Your task to perform on an android device: choose inbox layout in the gmail app Image 0: 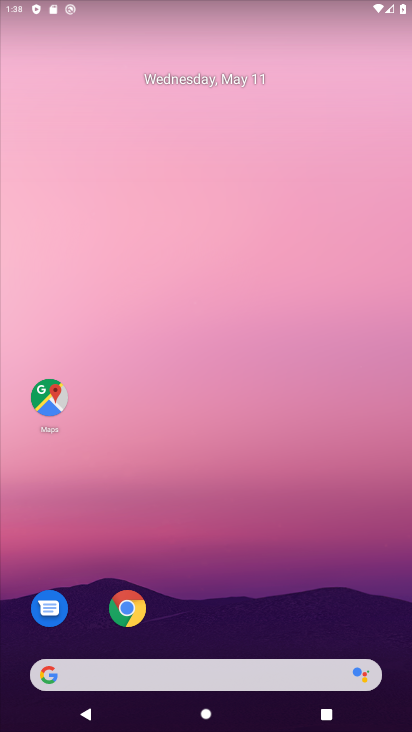
Step 0: drag from (195, 567) to (196, 313)
Your task to perform on an android device: choose inbox layout in the gmail app Image 1: 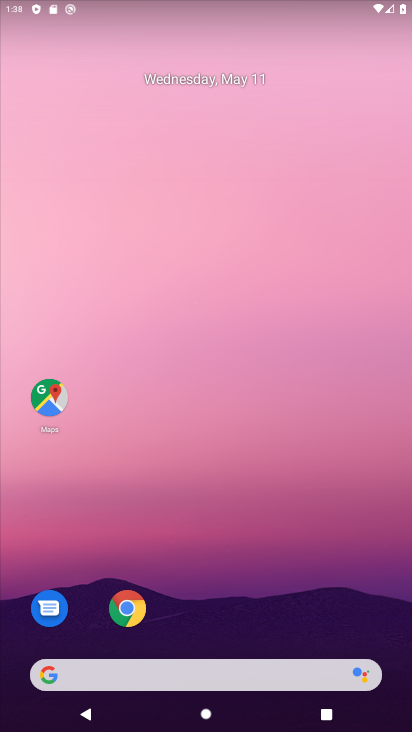
Step 1: drag from (226, 607) to (356, 10)
Your task to perform on an android device: choose inbox layout in the gmail app Image 2: 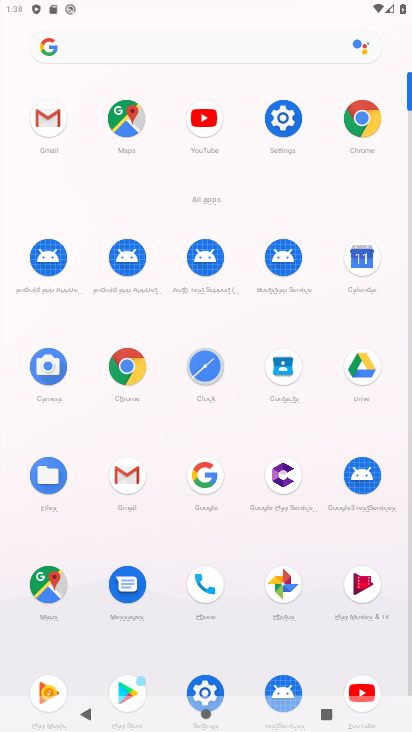
Step 2: click (43, 121)
Your task to perform on an android device: choose inbox layout in the gmail app Image 3: 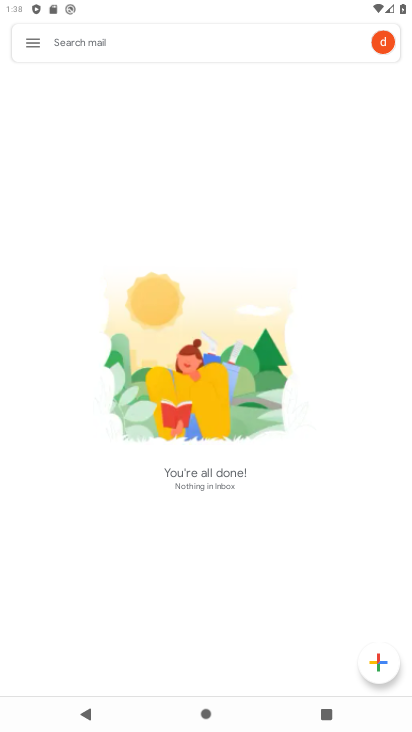
Step 3: task complete